Your task to perform on an android device: turn off smart reply in the gmail app Image 0: 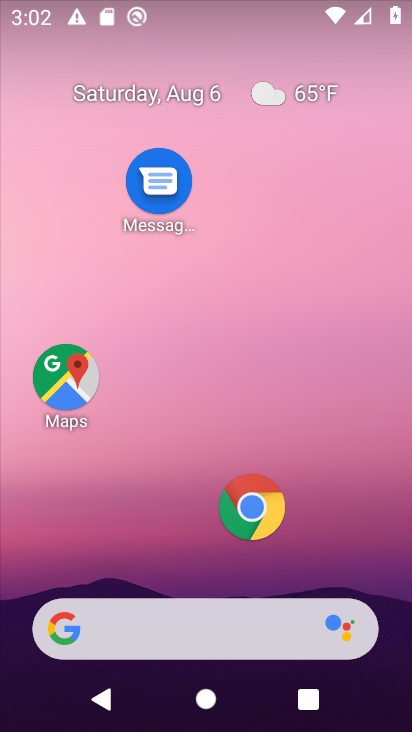
Step 0: drag from (185, 577) to (233, 0)
Your task to perform on an android device: turn off smart reply in the gmail app Image 1: 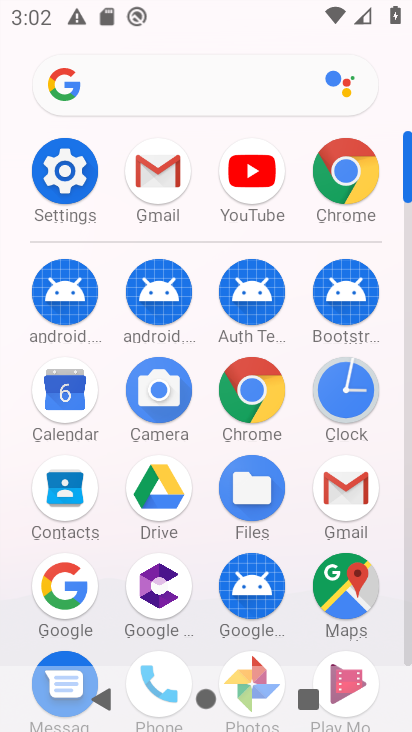
Step 1: click (350, 508)
Your task to perform on an android device: turn off smart reply in the gmail app Image 2: 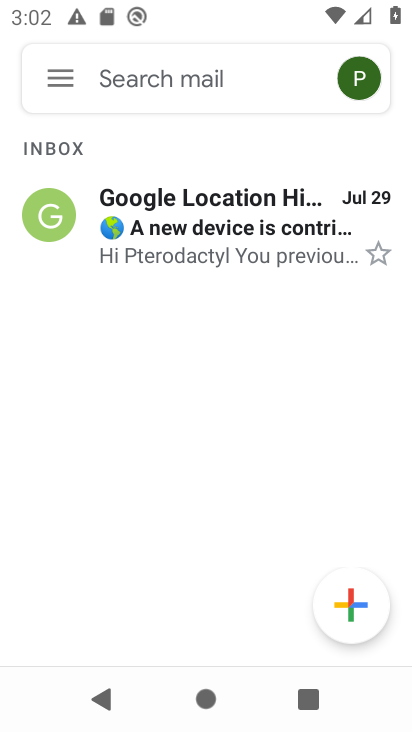
Step 2: click (54, 73)
Your task to perform on an android device: turn off smart reply in the gmail app Image 3: 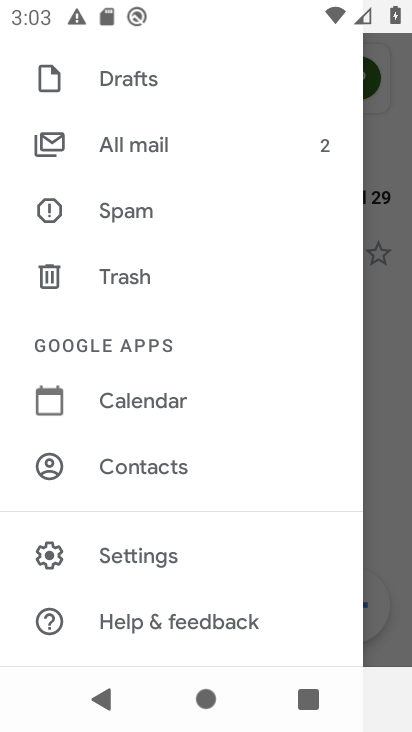
Step 3: click (149, 560)
Your task to perform on an android device: turn off smart reply in the gmail app Image 4: 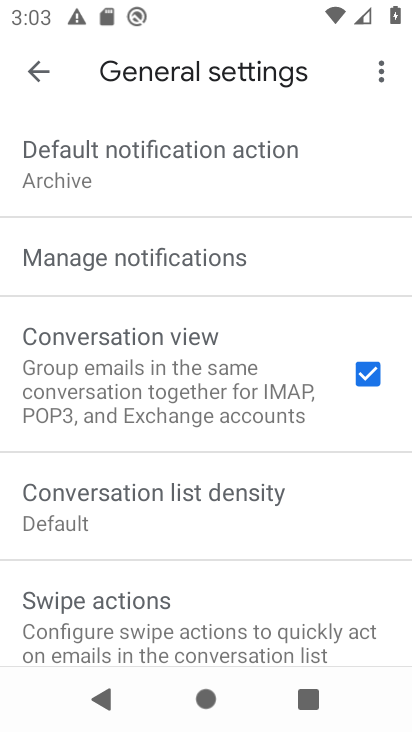
Step 4: click (30, 68)
Your task to perform on an android device: turn off smart reply in the gmail app Image 5: 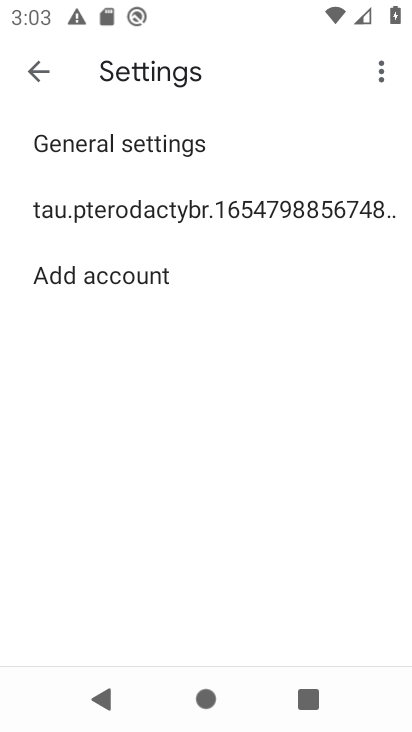
Step 5: click (154, 209)
Your task to perform on an android device: turn off smart reply in the gmail app Image 6: 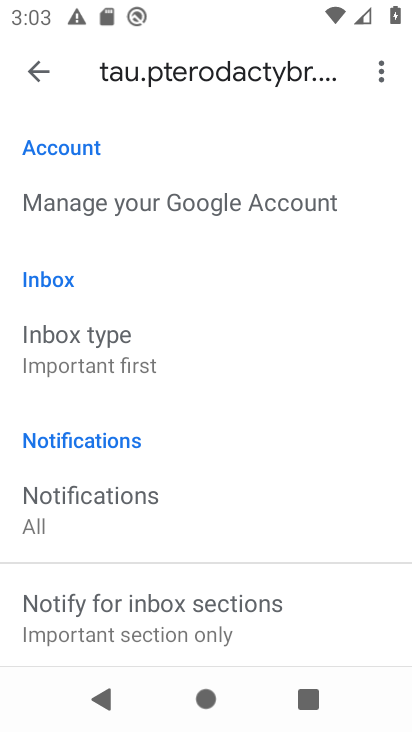
Step 6: drag from (210, 539) to (246, 116)
Your task to perform on an android device: turn off smart reply in the gmail app Image 7: 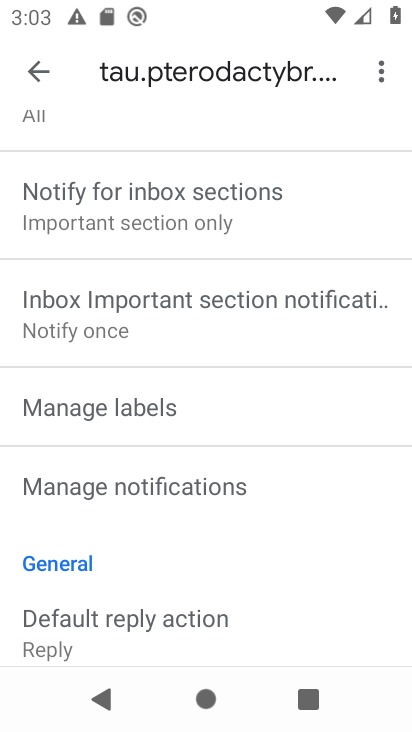
Step 7: drag from (159, 570) to (205, 293)
Your task to perform on an android device: turn off smart reply in the gmail app Image 8: 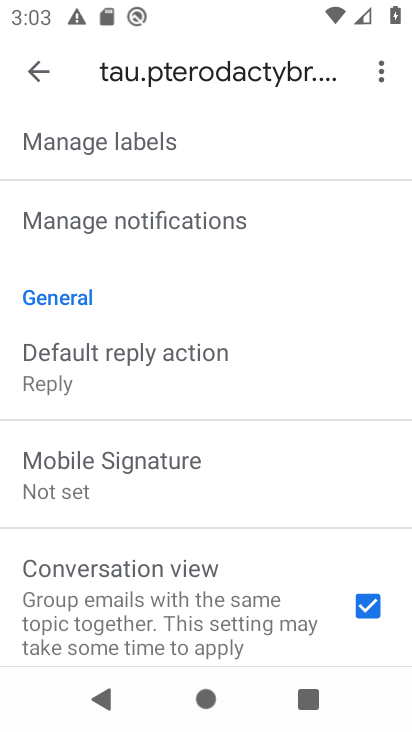
Step 8: drag from (129, 535) to (192, 70)
Your task to perform on an android device: turn off smart reply in the gmail app Image 9: 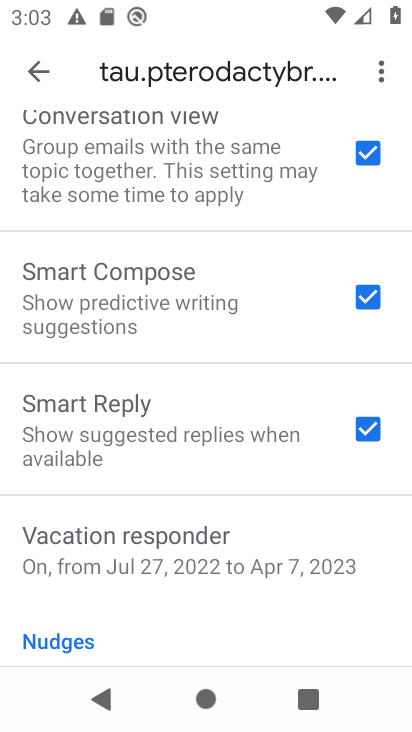
Step 9: click (332, 423)
Your task to perform on an android device: turn off smart reply in the gmail app Image 10: 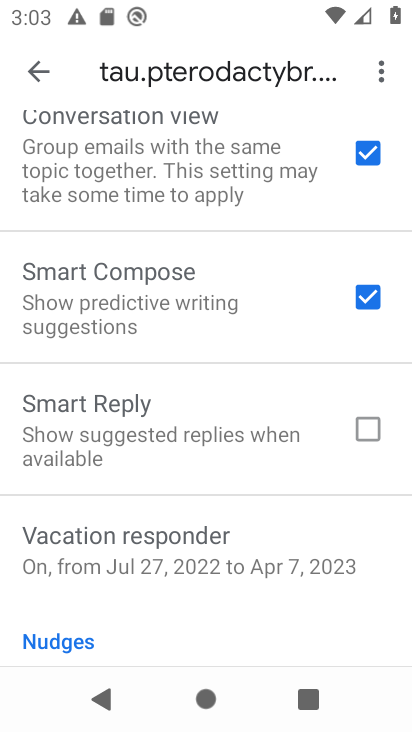
Step 10: task complete